Your task to perform on an android device: change timer sound Image 0: 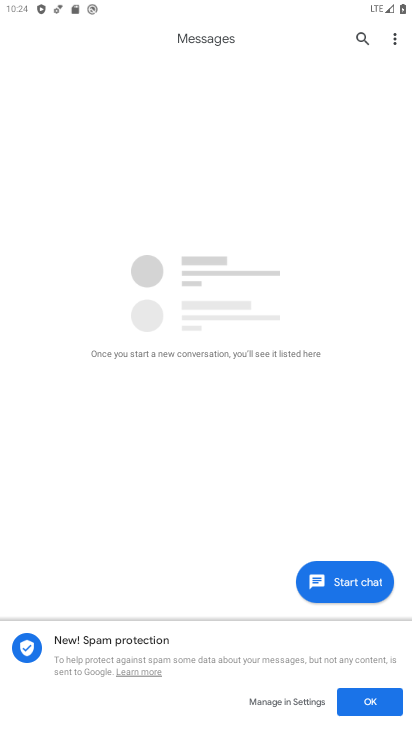
Step 0: press home button
Your task to perform on an android device: change timer sound Image 1: 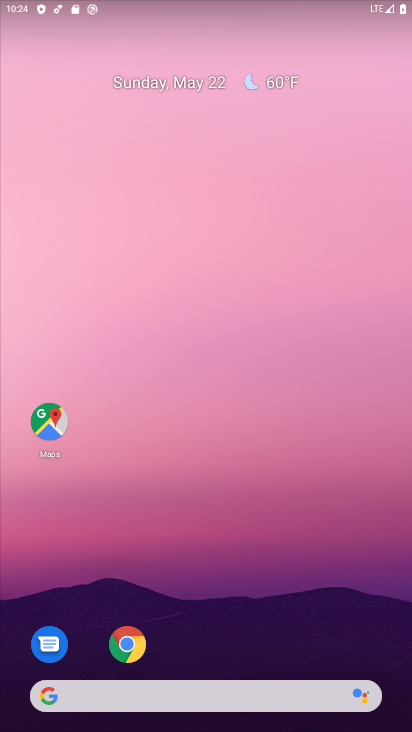
Step 1: drag from (214, 658) to (208, 162)
Your task to perform on an android device: change timer sound Image 2: 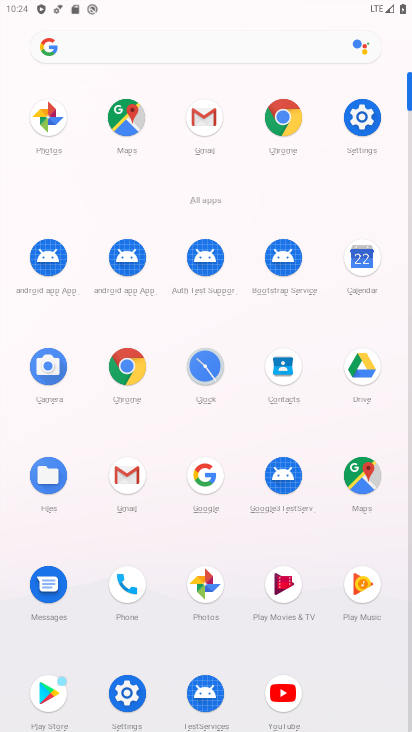
Step 2: click (367, 127)
Your task to perform on an android device: change timer sound Image 3: 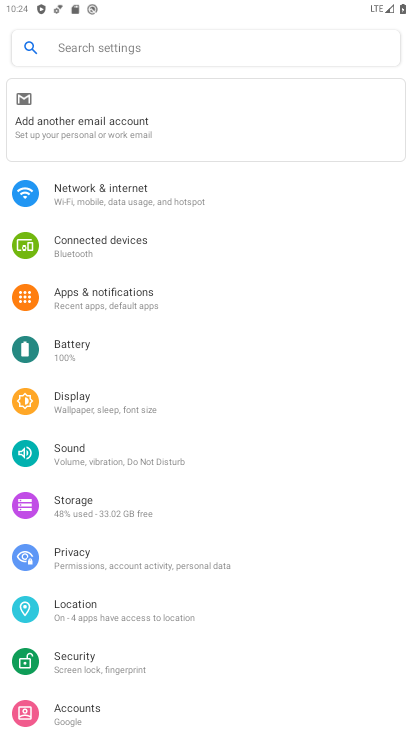
Step 3: press back button
Your task to perform on an android device: change timer sound Image 4: 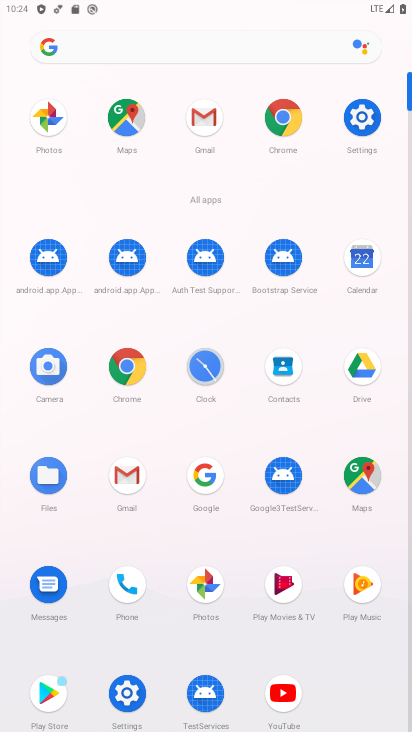
Step 4: click (204, 396)
Your task to perform on an android device: change timer sound Image 5: 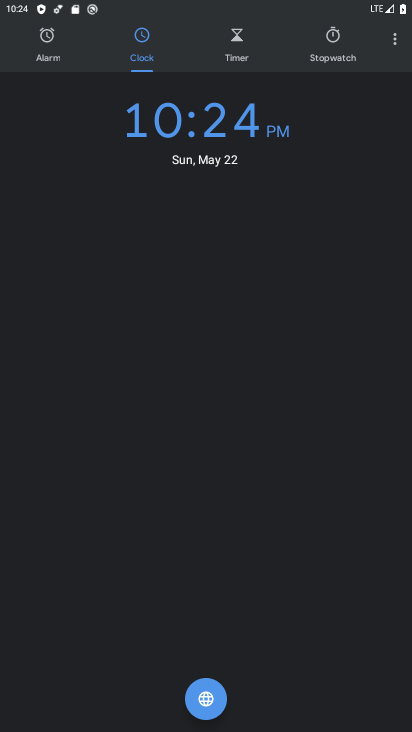
Step 5: click (395, 44)
Your task to perform on an android device: change timer sound Image 6: 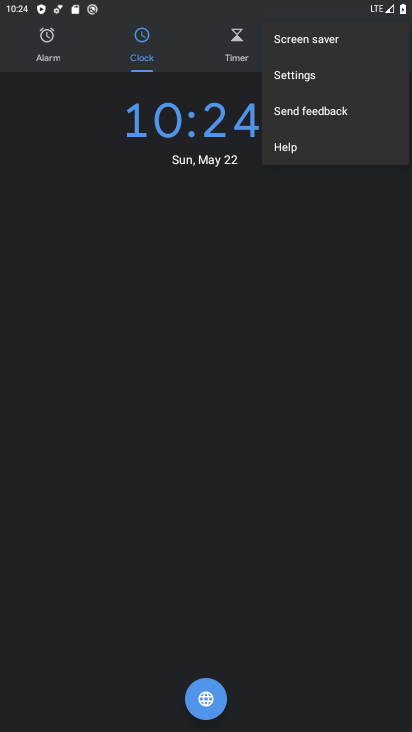
Step 6: click (324, 63)
Your task to perform on an android device: change timer sound Image 7: 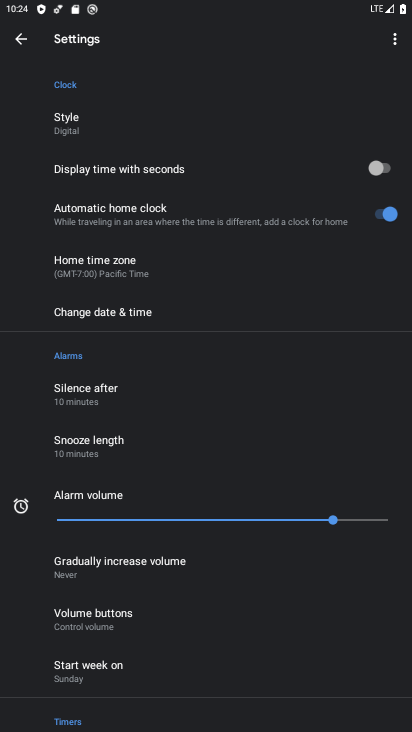
Step 7: drag from (126, 641) to (197, 290)
Your task to perform on an android device: change timer sound Image 8: 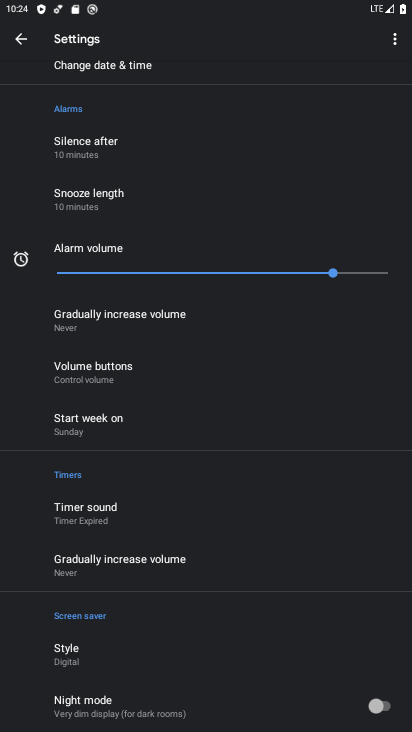
Step 8: click (88, 525)
Your task to perform on an android device: change timer sound Image 9: 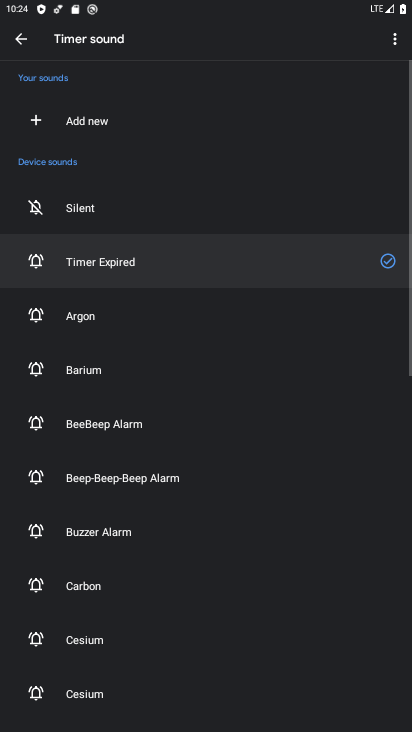
Step 9: click (53, 423)
Your task to perform on an android device: change timer sound Image 10: 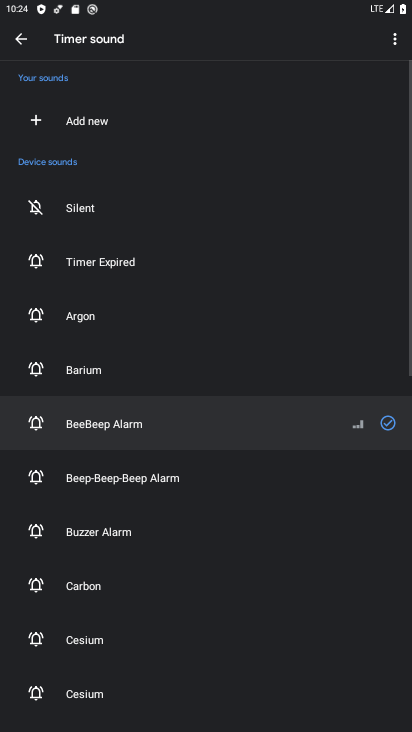
Step 10: task complete